Your task to perform on an android device: toggle improve location accuracy Image 0: 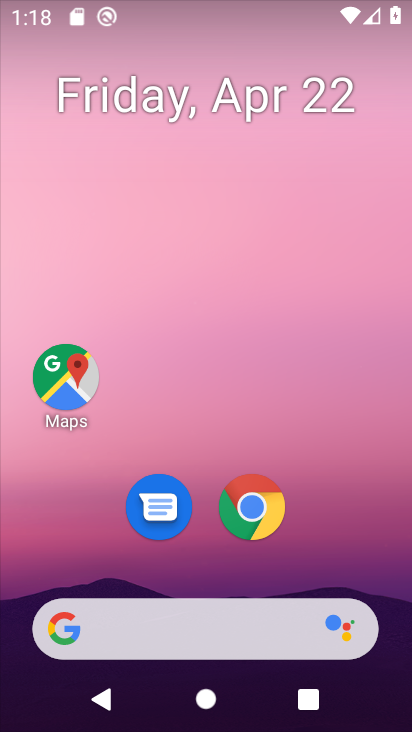
Step 0: drag from (144, 628) to (227, 127)
Your task to perform on an android device: toggle improve location accuracy Image 1: 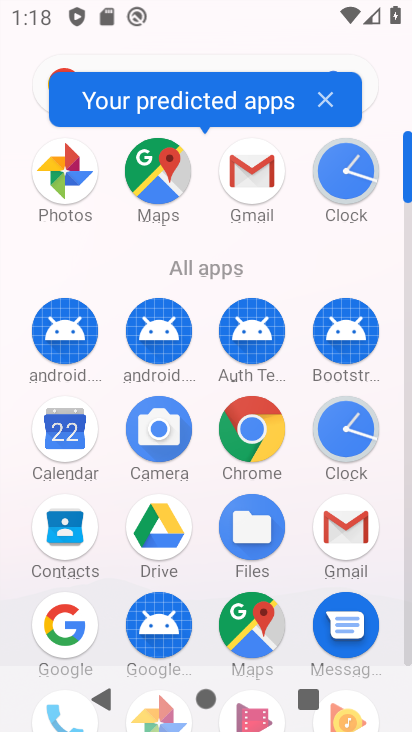
Step 1: drag from (216, 557) to (328, 156)
Your task to perform on an android device: toggle improve location accuracy Image 2: 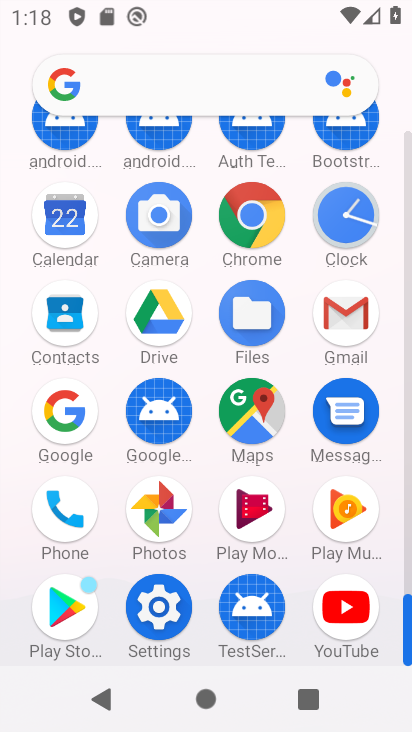
Step 2: click (159, 609)
Your task to perform on an android device: toggle improve location accuracy Image 3: 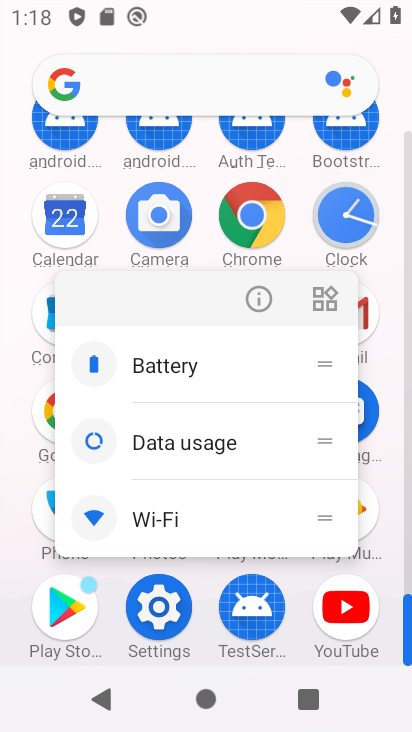
Step 3: click (159, 621)
Your task to perform on an android device: toggle improve location accuracy Image 4: 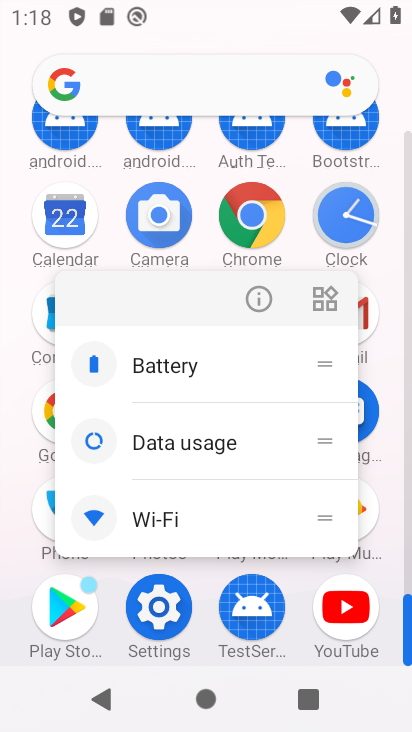
Step 4: click (162, 614)
Your task to perform on an android device: toggle improve location accuracy Image 5: 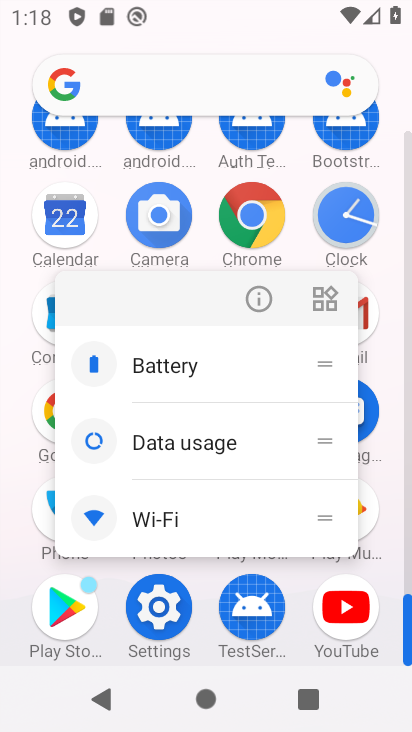
Step 5: click (155, 611)
Your task to perform on an android device: toggle improve location accuracy Image 6: 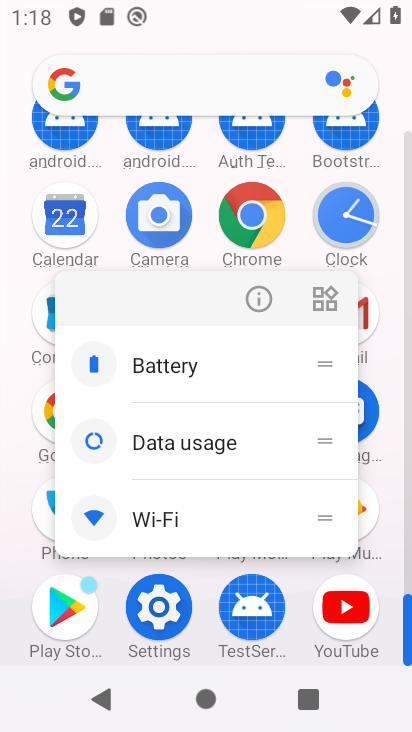
Step 6: click (157, 609)
Your task to perform on an android device: toggle improve location accuracy Image 7: 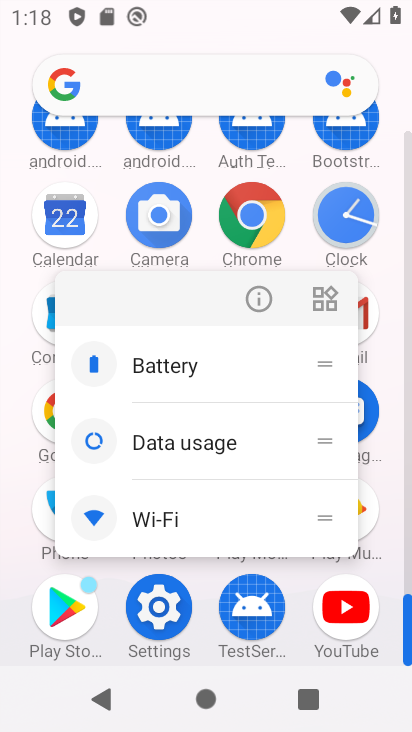
Step 7: click (150, 616)
Your task to perform on an android device: toggle improve location accuracy Image 8: 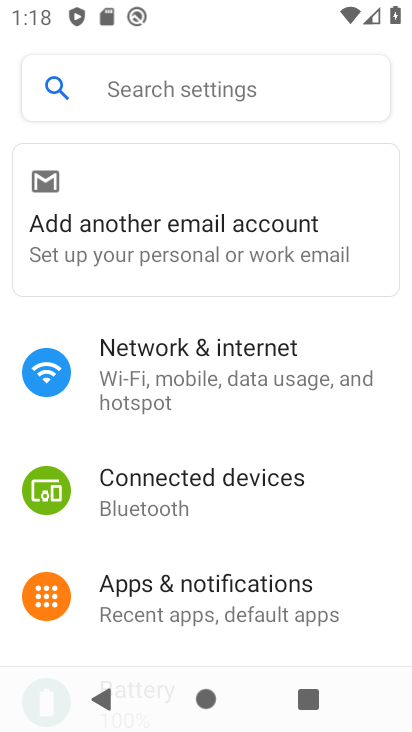
Step 8: drag from (187, 533) to (308, 120)
Your task to perform on an android device: toggle improve location accuracy Image 9: 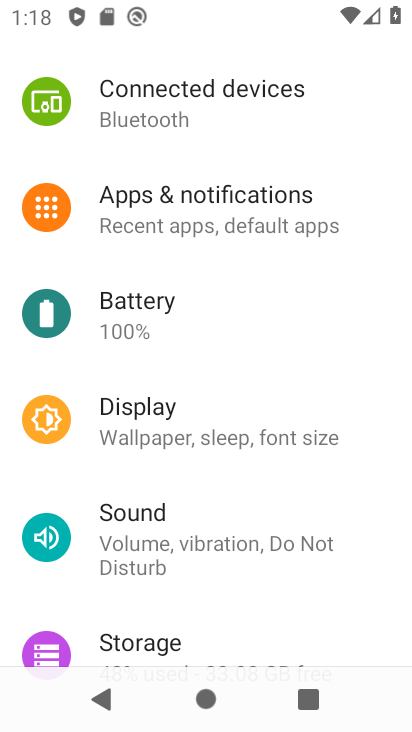
Step 9: drag from (181, 562) to (277, 87)
Your task to perform on an android device: toggle improve location accuracy Image 10: 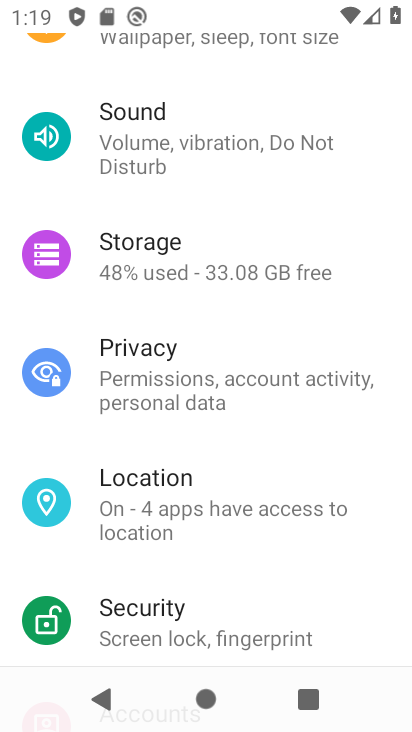
Step 10: click (163, 488)
Your task to perform on an android device: toggle improve location accuracy Image 11: 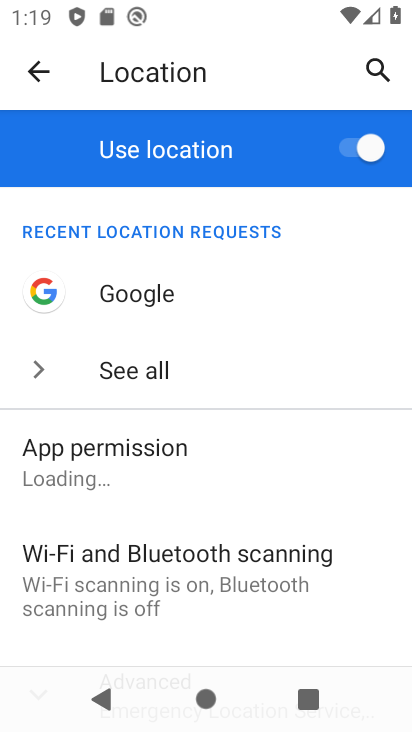
Step 11: drag from (148, 542) to (294, 91)
Your task to perform on an android device: toggle improve location accuracy Image 12: 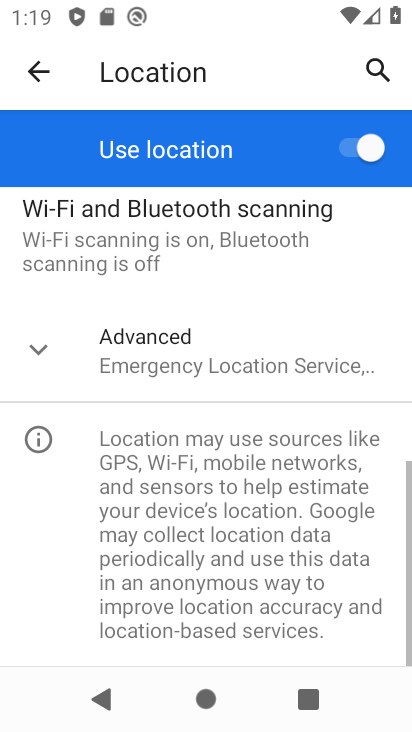
Step 12: click (120, 356)
Your task to perform on an android device: toggle improve location accuracy Image 13: 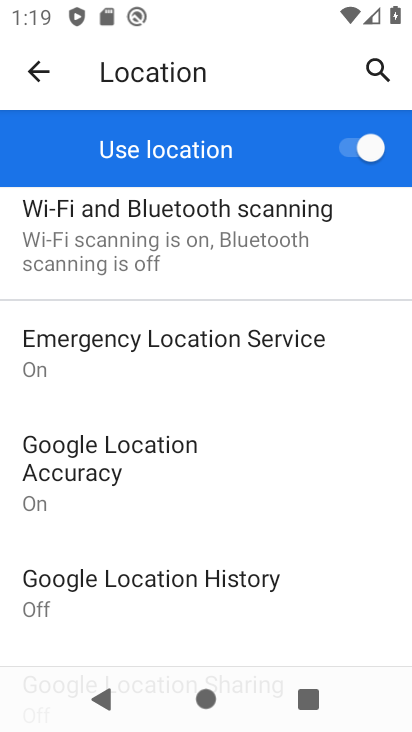
Step 13: click (112, 458)
Your task to perform on an android device: toggle improve location accuracy Image 14: 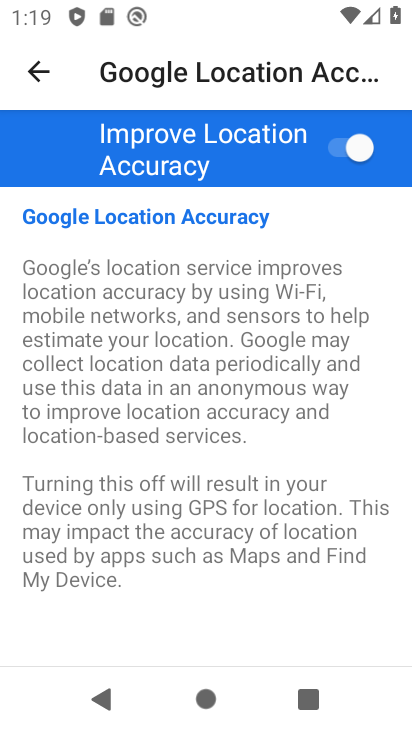
Step 14: click (340, 156)
Your task to perform on an android device: toggle improve location accuracy Image 15: 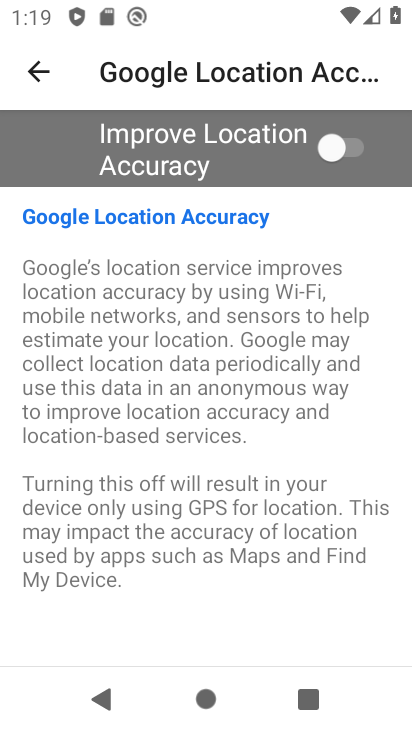
Step 15: task complete